Your task to perform on an android device: Go to privacy settings Image 0: 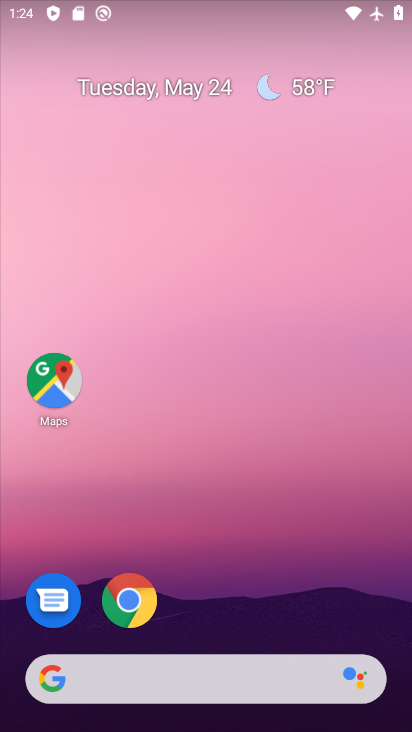
Step 0: drag from (287, 557) to (189, 20)
Your task to perform on an android device: Go to privacy settings Image 1: 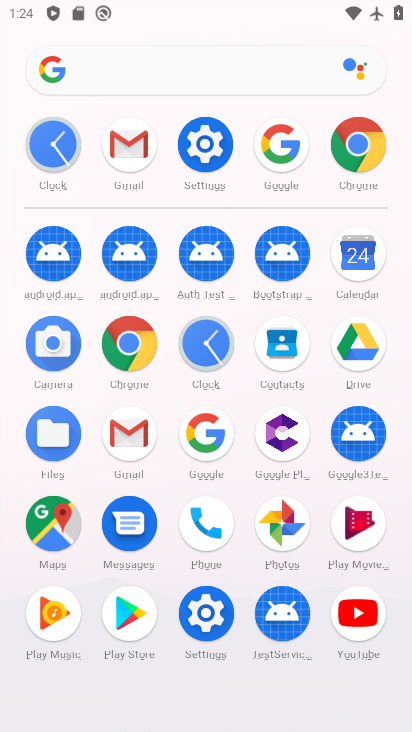
Step 1: click (207, 153)
Your task to perform on an android device: Go to privacy settings Image 2: 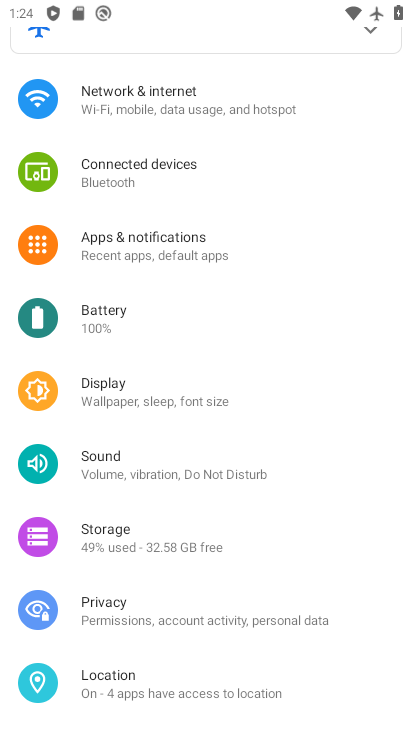
Step 2: click (192, 602)
Your task to perform on an android device: Go to privacy settings Image 3: 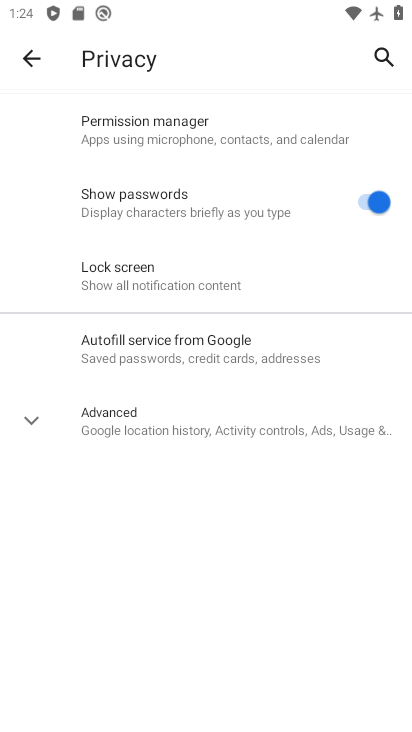
Step 3: task complete